Your task to perform on an android device: turn on improve location accuracy Image 0: 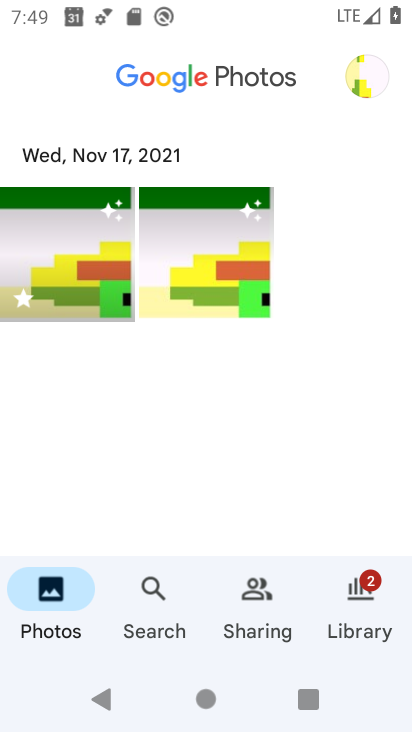
Step 0: press home button
Your task to perform on an android device: turn on improve location accuracy Image 1: 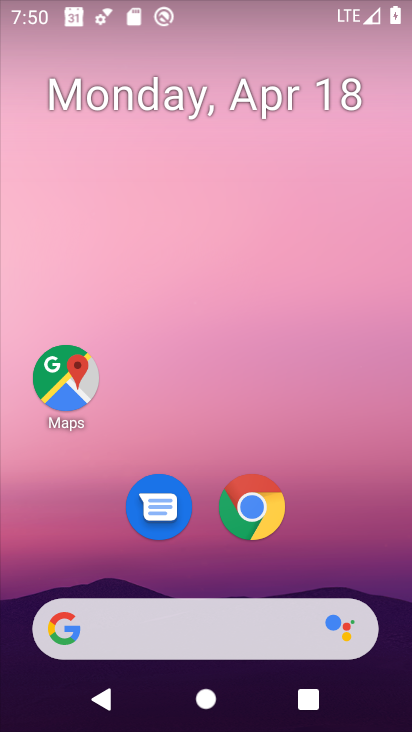
Step 1: drag from (2, 492) to (278, 29)
Your task to perform on an android device: turn on improve location accuracy Image 2: 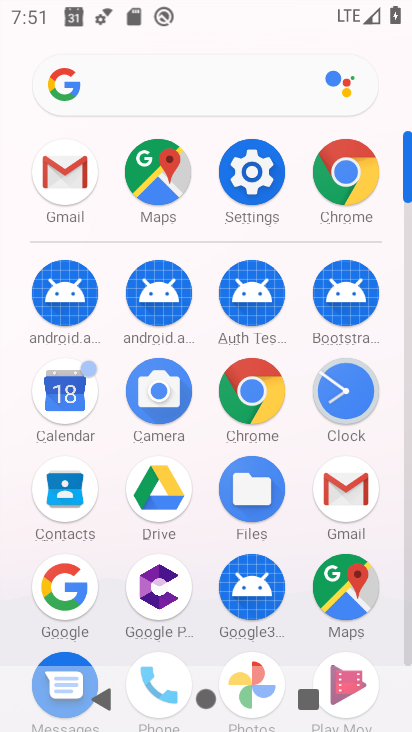
Step 2: click (242, 172)
Your task to perform on an android device: turn on improve location accuracy Image 3: 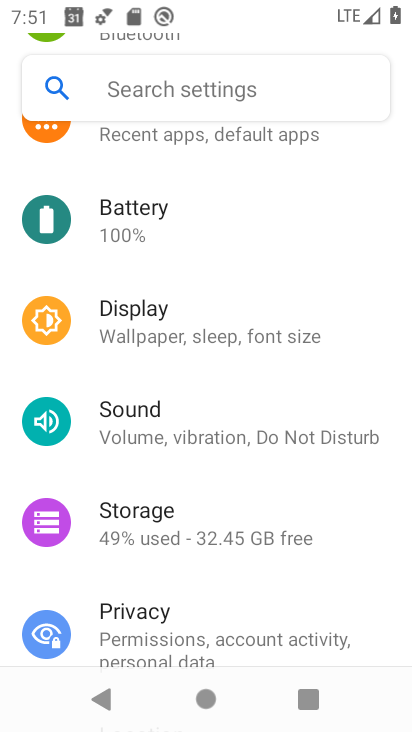
Step 3: drag from (130, 583) to (251, 146)
Your task to perform on an android device: turn on improve location accuracy Image 4: 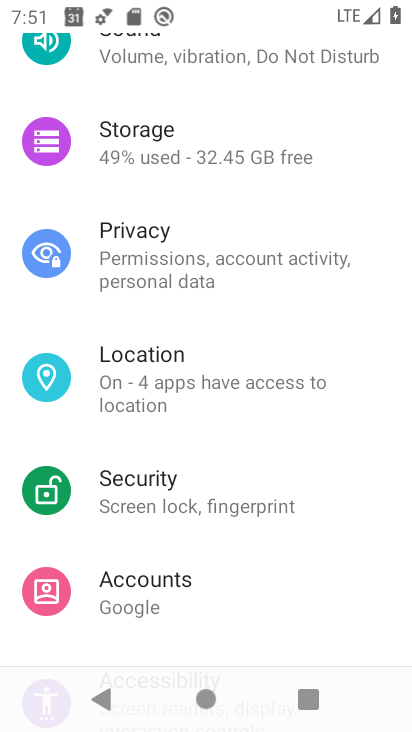
Step 4: click (204, 366)
Your task to perform on an android device: turn on improve location accuracy Image 5: 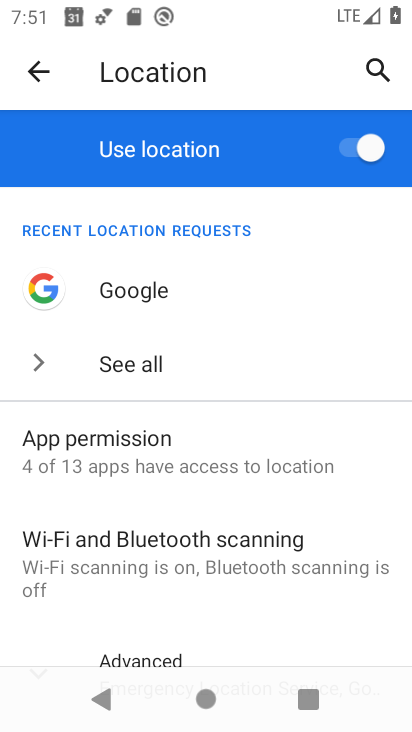
Step 5: drag from (146, 598) to (219, 228)
Your task to perform on an android device: turn on improve location accuracy Image 6: 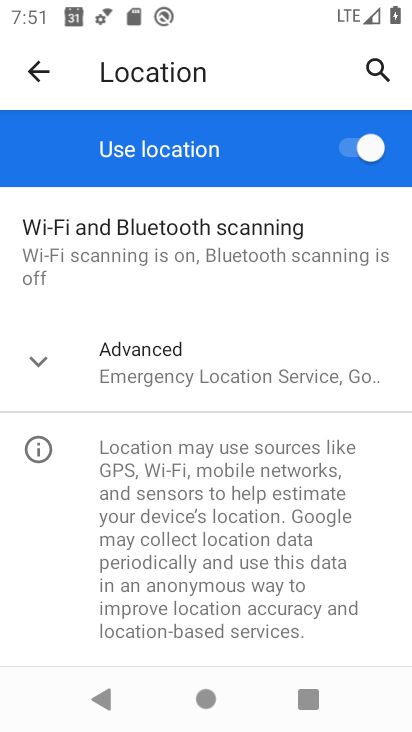
Step 6: click (30, 369)
Your task to perform on an android device: turn on improve location accuracy Image 7: 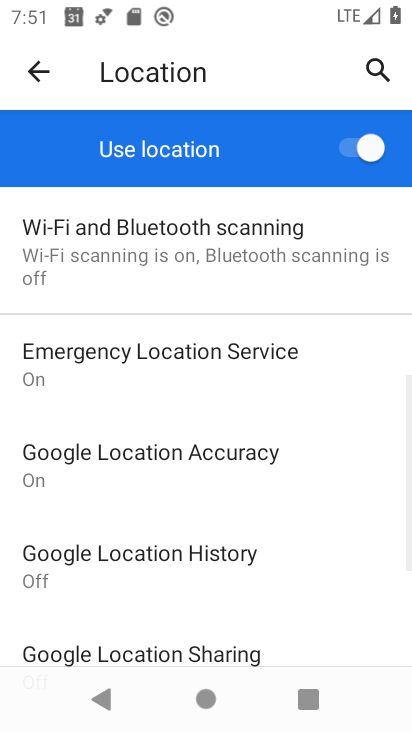
Step 7: click (301, 466)
Your task to perform on an android device: turn on improve location accuracy Image 8: 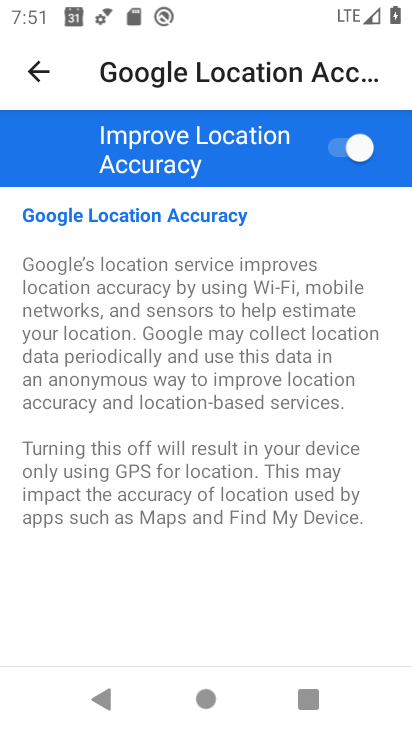
Step 8: task complete